Your task to perform on an android device: turn on showing notifications on the lock screen Image 0: 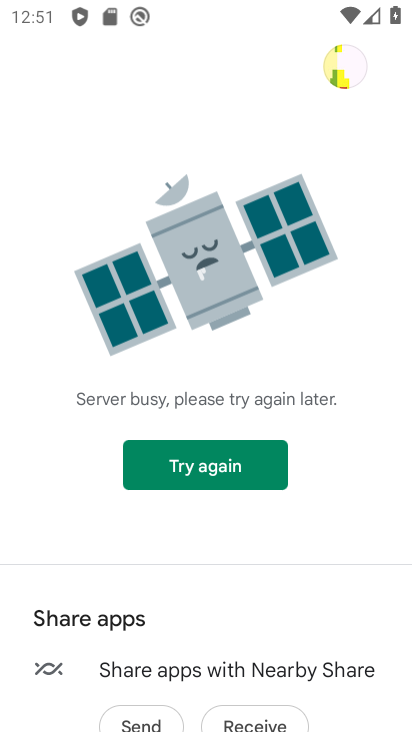
Step 0: press home button
Your task to perform on an android device: turn on showing notifications on the lock screen Image 1: 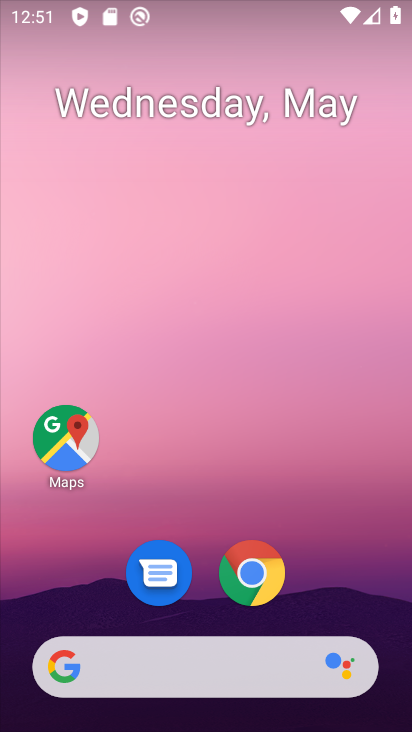
Step 1: drag from (101, 632) to (211, 218)
Your task to perform on an android device: turn on showing notifications on the lock screen Image 2: 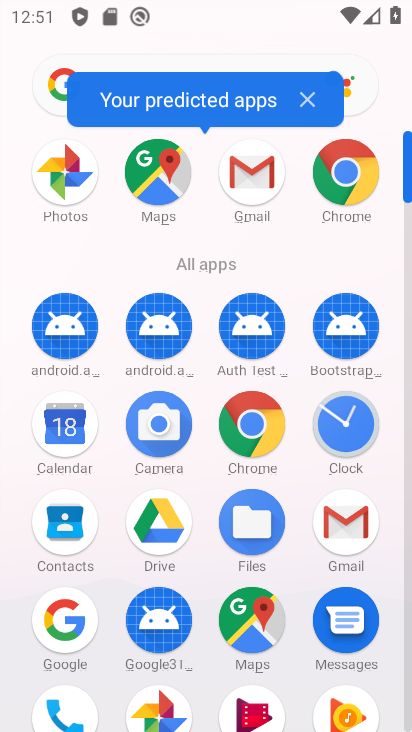
Step 2: drag from (180, 646) to (265, 426)
Your task to perform on an android device: turn on showing notifications on the lock screen Image 3: 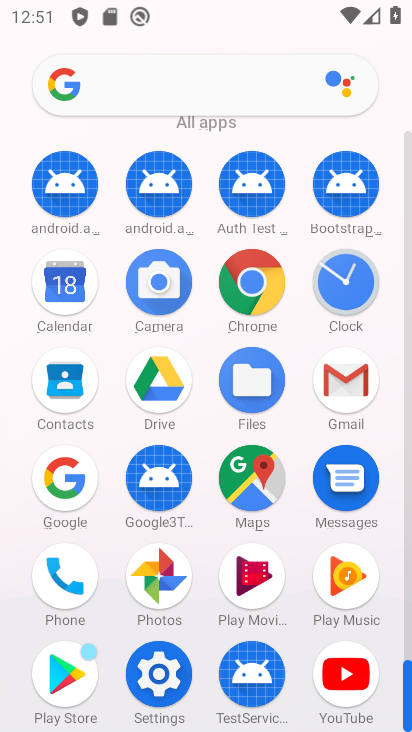
Step 3: click (150, 681)
Your task to perform on an android device: turn on showing notifications on the lock screen Image 4: 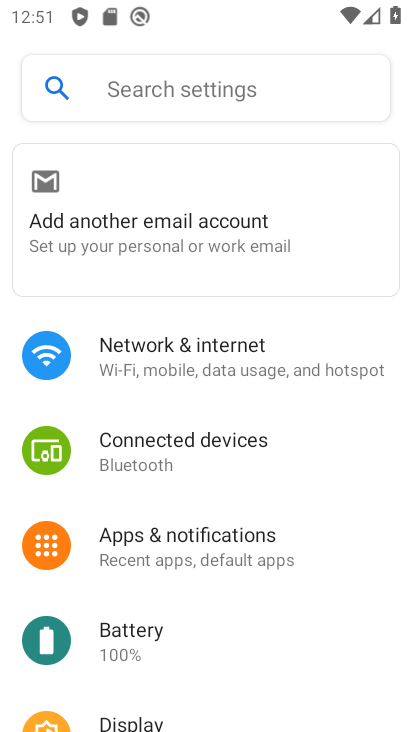
Step 4: drag from (131, 662) to (224, 403)
Your task to perform on an android device: turn on showing notifications on the lock screen Image 5: 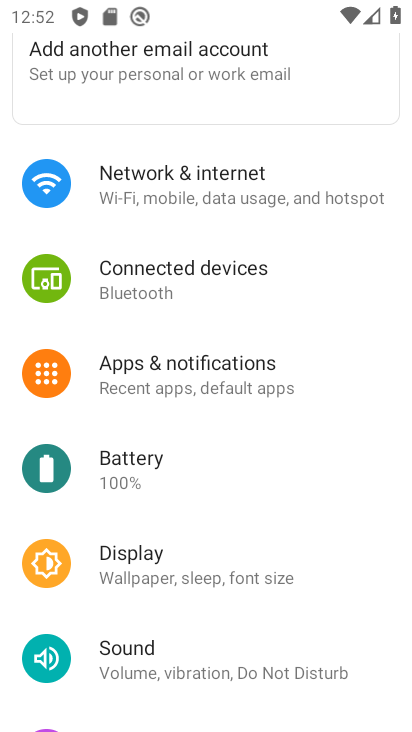
Step 5: click (204, 386)
Your task to perform on an android device: turn on showing notifications on the lock screen Image 6: 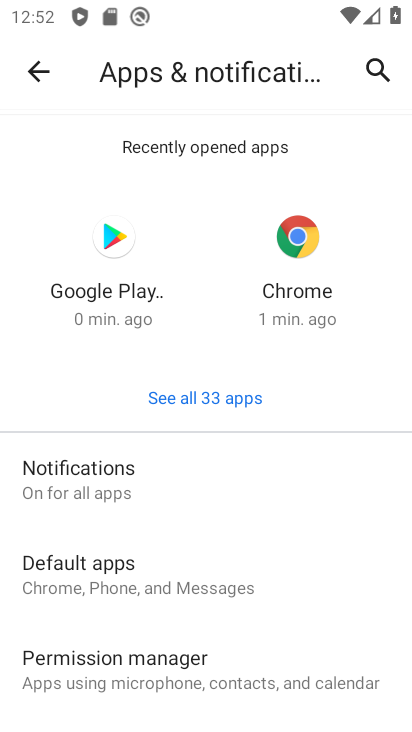
Step 6: click (186, 496)
Your task to perform on an android device: turn on showing notifications on the lock screen Image 7: 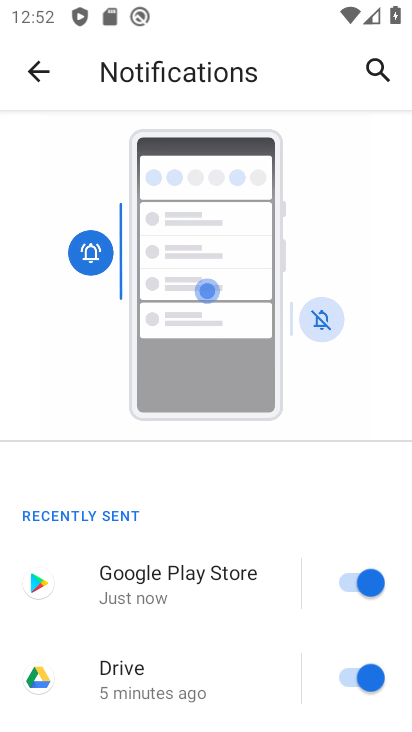
Step 7: task complete